Your task to perform on an android device: Go to notification settings Image 0: 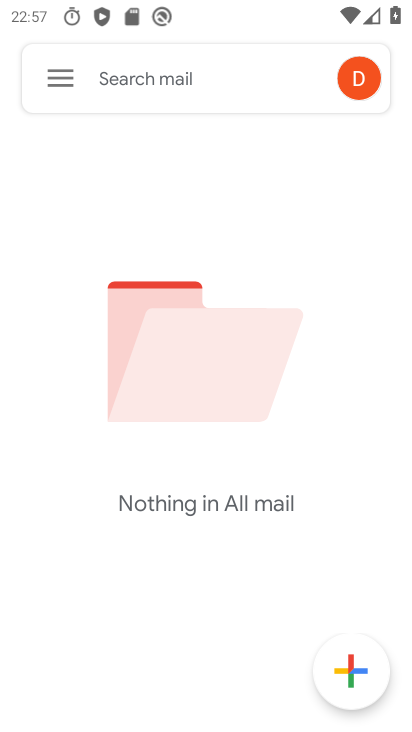
Step 0: press home button
Your task to perform on an android device: Go to notification settings Image 1: 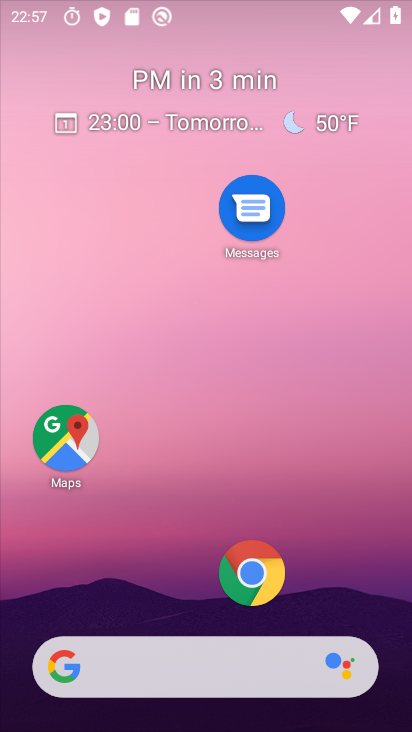
Step 1: drag from (177, 594) to (175, 80)
Your task to perform on an android device: Go to notification settings Image 2: 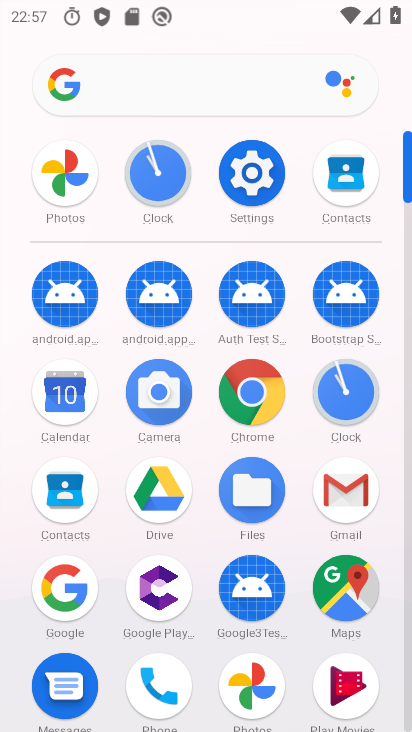
Step 2: click (246, 180)
Your task to perform on an android device: Go to notification settings Image 3: 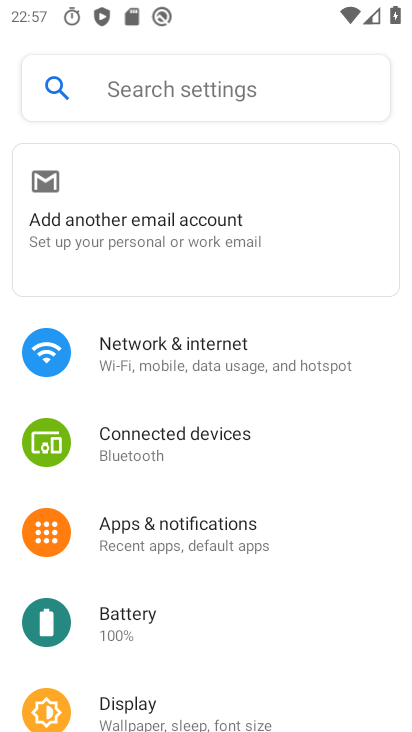
Step 3: drag from (205, 639) to (206, 407)
Your task to perform on an android device: Go to notification settings Image 4: 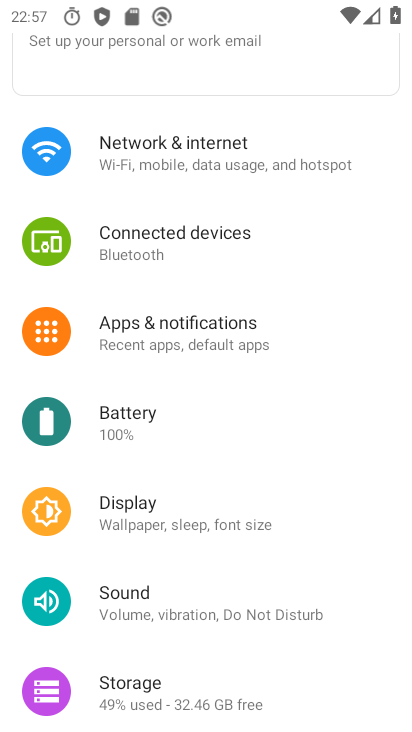
Step 4: click (167, 316)
Your task to perform on an android device: Go to notification settings Image 5: 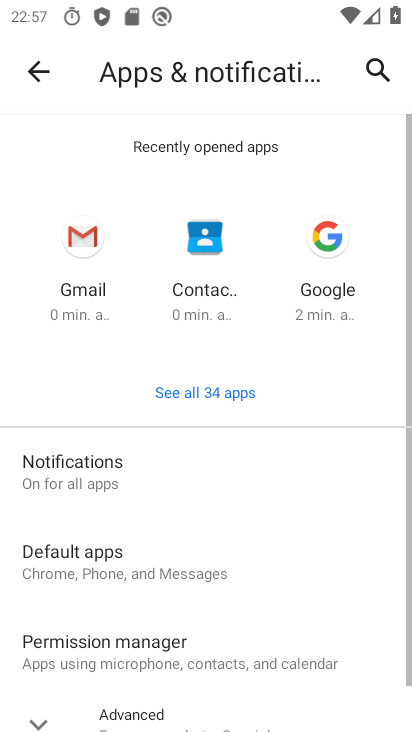
Step 5: click (154, 456)
Your task to perform on an android device: Go to notification settings Image 6: 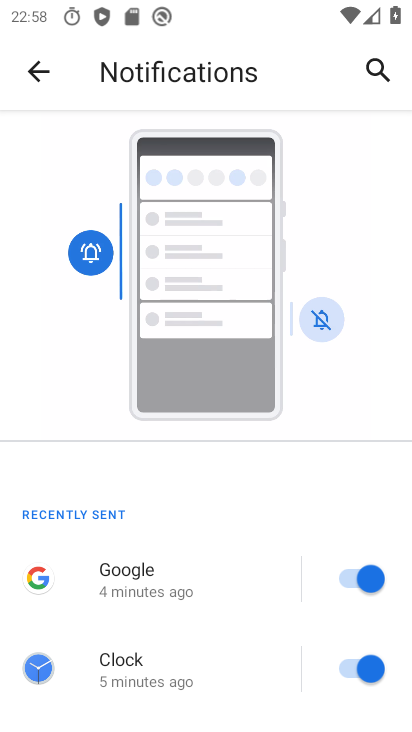
Step 6: task complete